Your task to perform on an android device: toggle javascript in the chrome app Image 0: 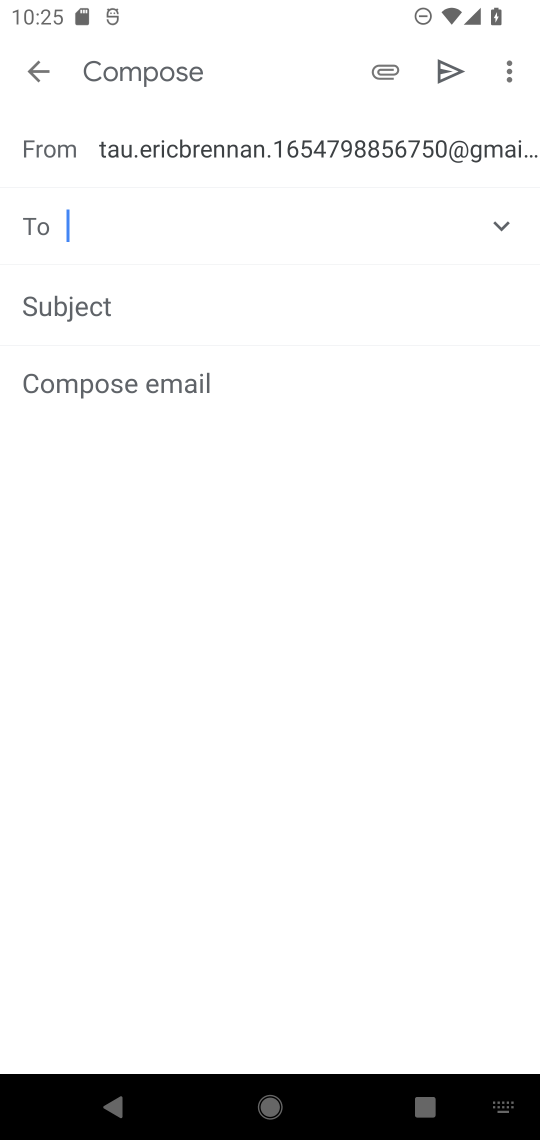
Step 0: press home button
Your task to perform on an android device: toggle javascript in the chrome app Image 1: 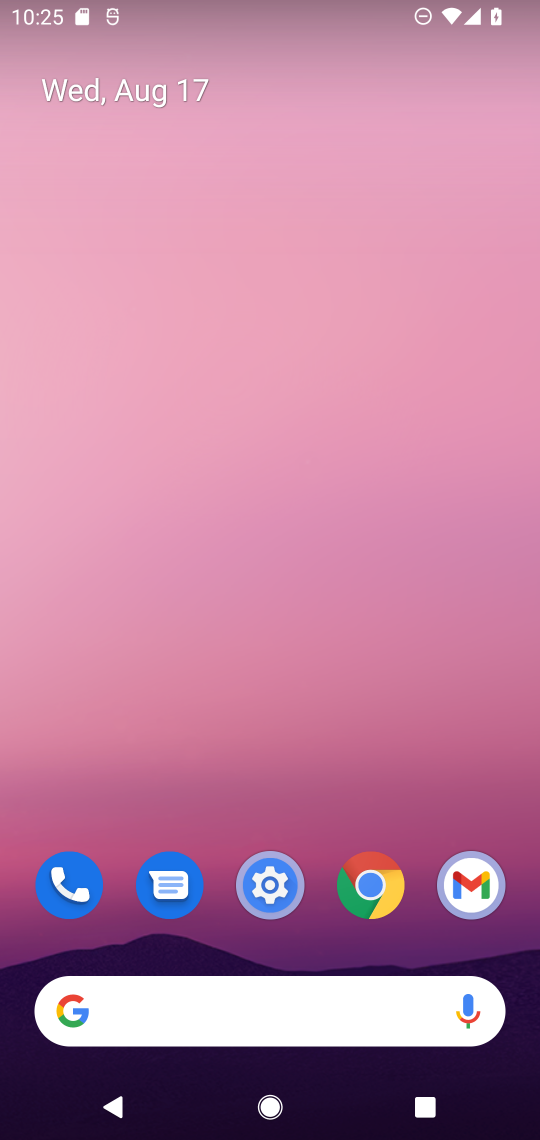
Step 1: click (372, 886)
Your task to perform on an android device: toggle javascript in the chrome app Image 2: 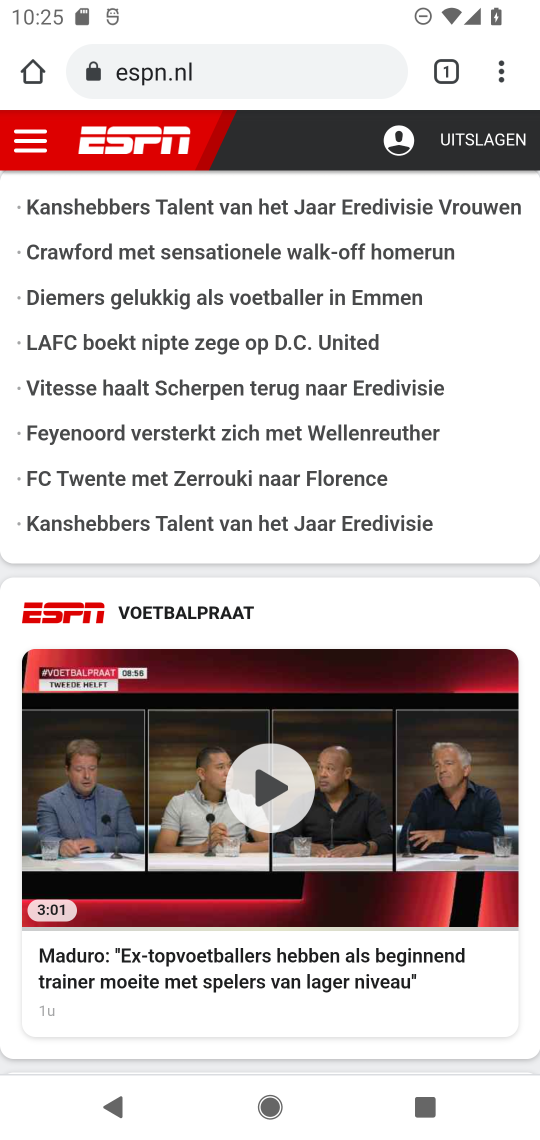
Step 2: click (489, 76)
Your task to perform on an android device: toggle javascript in the chrome app Image 3: 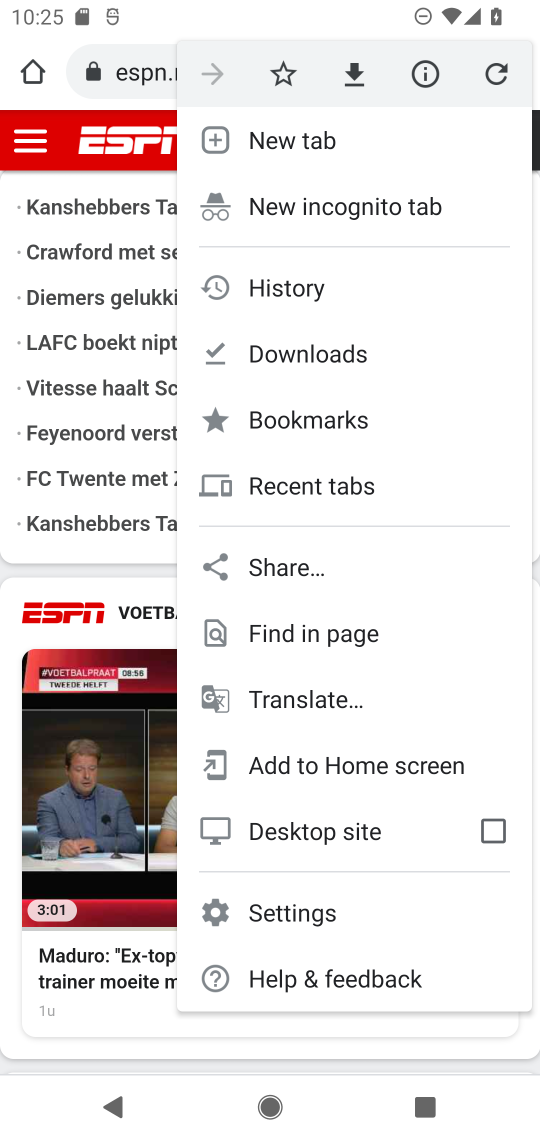
Step 3: click (294, 901)
Your task to perform on an android device: toggle javascript in the chrome app Image 4: 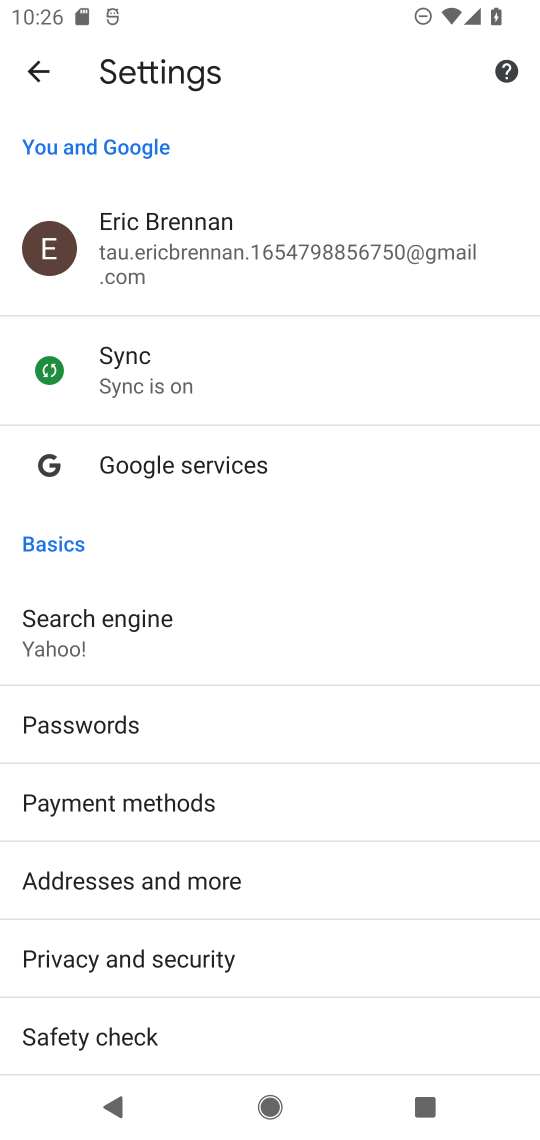
Step 4: drag from (349, 980) to (367, 331)
Your task to perform on an android device: toggle javascript in the chrome app Image 5: 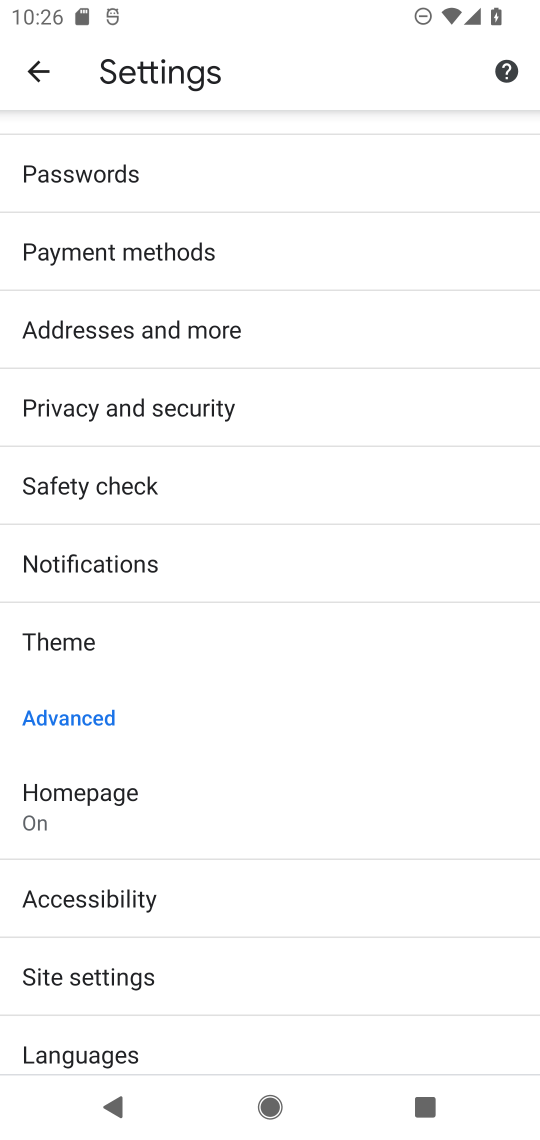
Step 5: drag from (331, 973) to (355, 426)
Your task to perform on an android device: toggle javascript in the chrome app Image 6: 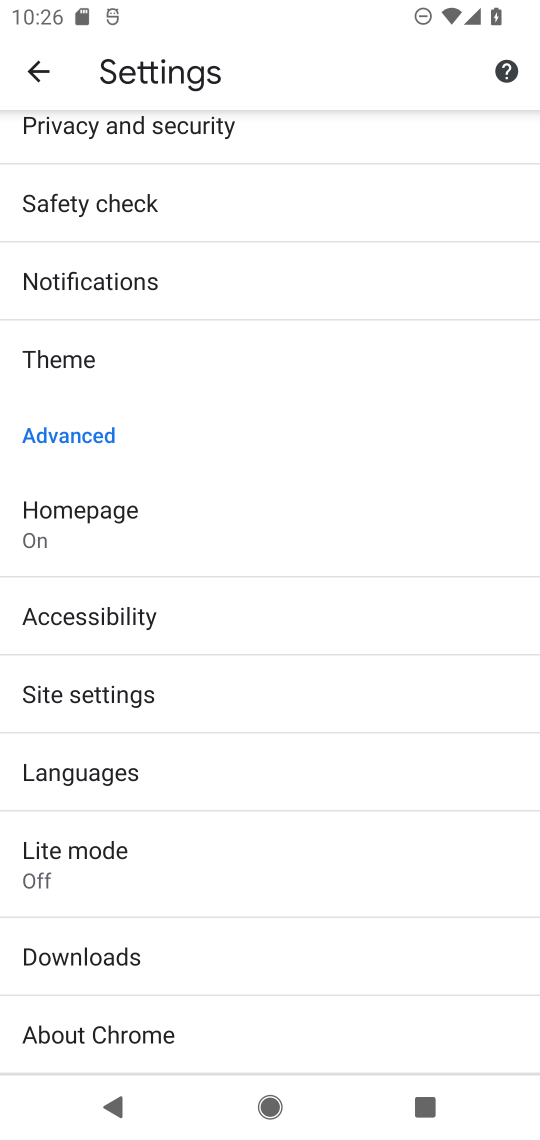
Step 6: click (99, 690)
Your task to perform on an android device: toggle javascript in the chrome app Image 7: 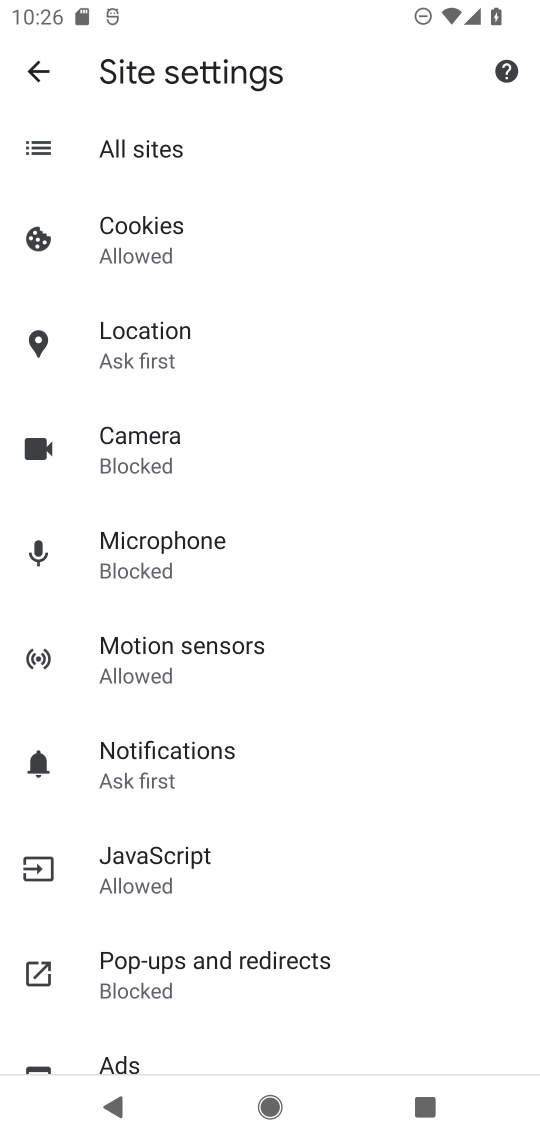
Step 7: click (167, 863)
Your task to perform on an android device: toggle javascript in the chrome app Image 8: 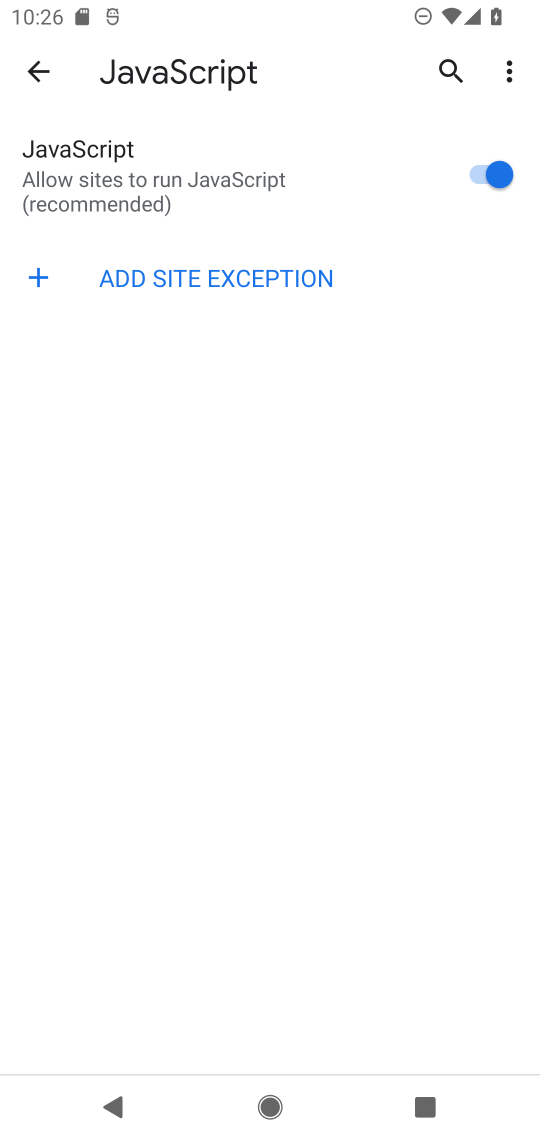
Step 8: click (471, 171)
Your task to perform on an android device: toggle javascript in the chrome app Image 9: 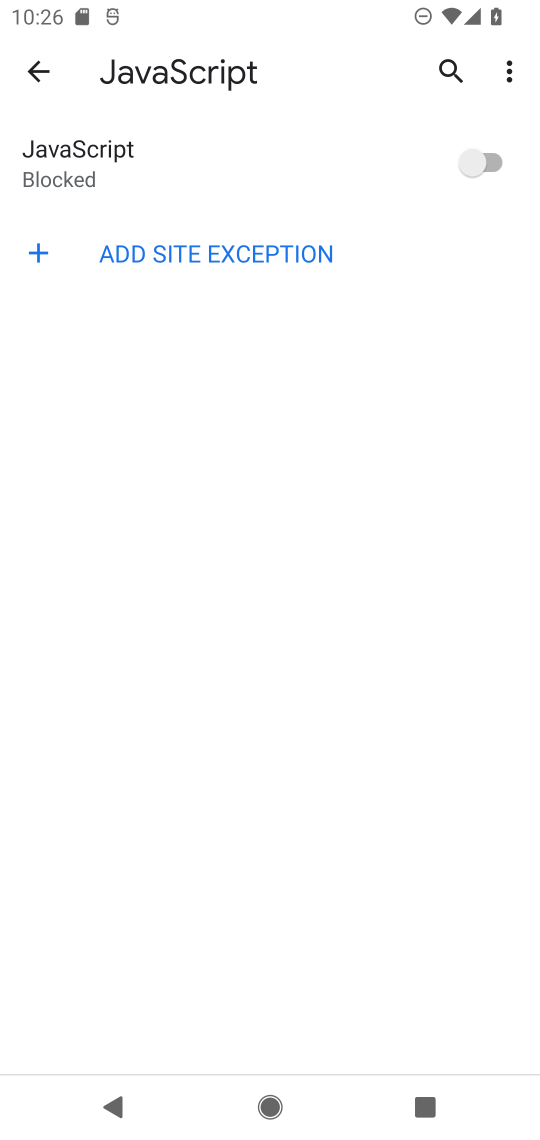
Step 9: task complete